Your task to perform on an android device: Go to eBay Image 0: 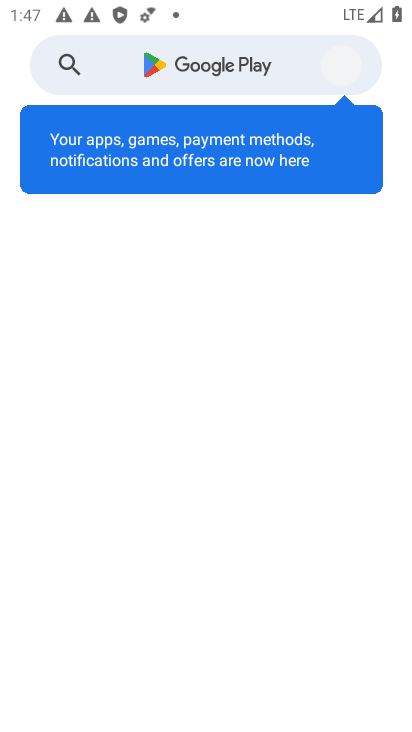
Step 0: press back button
Your task to perform on an android device: Go to eBay Image 1: 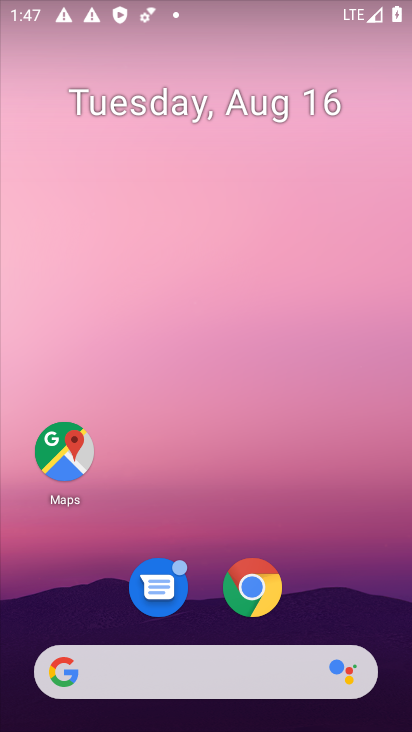
Step 1: click (261, 590)
Your task to perform on an android device: Go to eBay Image 2: 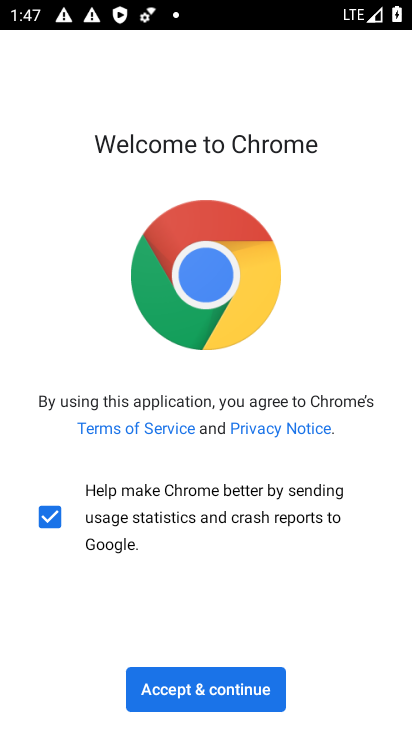
Step 2: click (185, 696)
Your task to perform on an android device: Go to eBay Image 3: 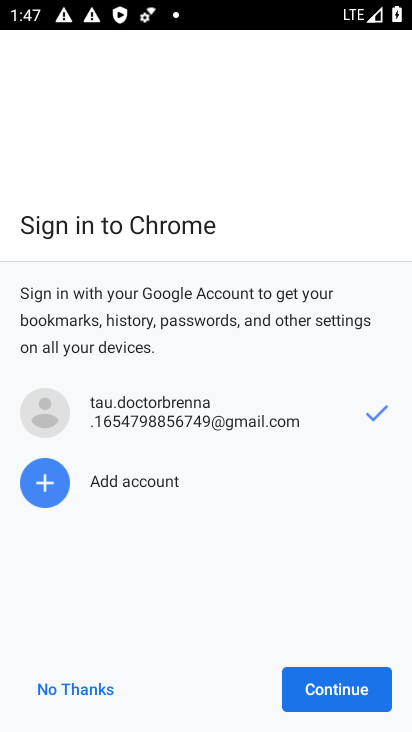
Step 3: click (350, 675)
Your task to perform on an android device: Go to eBay Image 4: 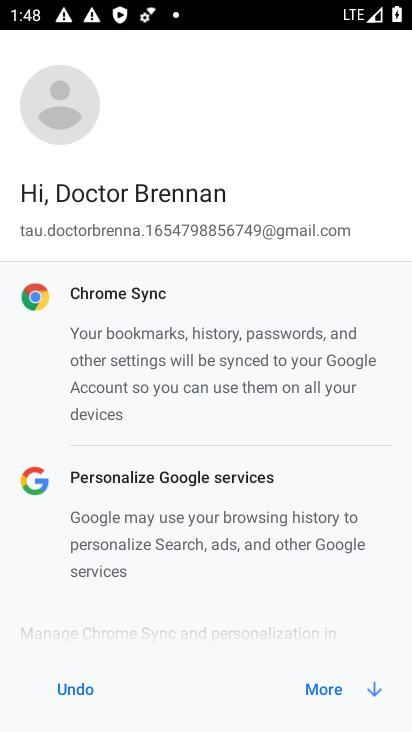
Step 4: click (331, 679)
Your task to perform on an android device: Go to eBay Image 5: 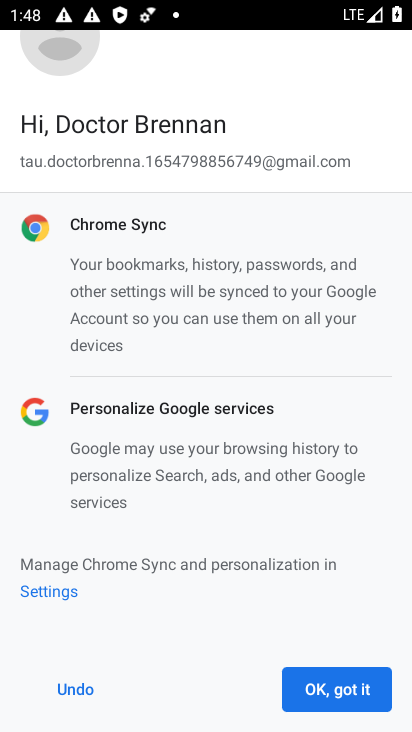
Step 5: click (329, 682)
Your task to perform on an android device: Go to eBay Image 6: 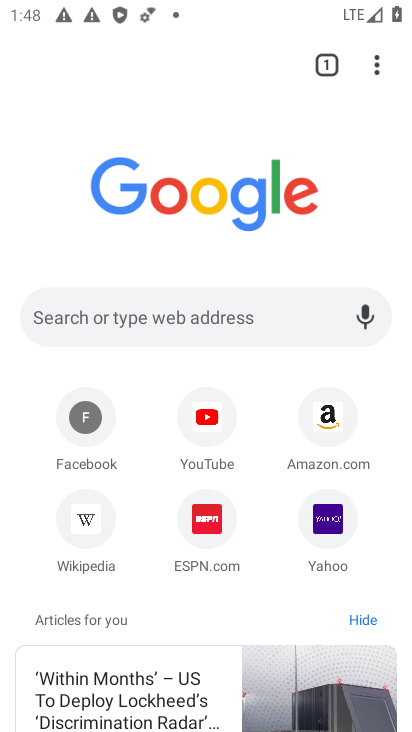
Step 6: click (129, 323)
Your task to perform on an android device: Go to eBay Image 7: 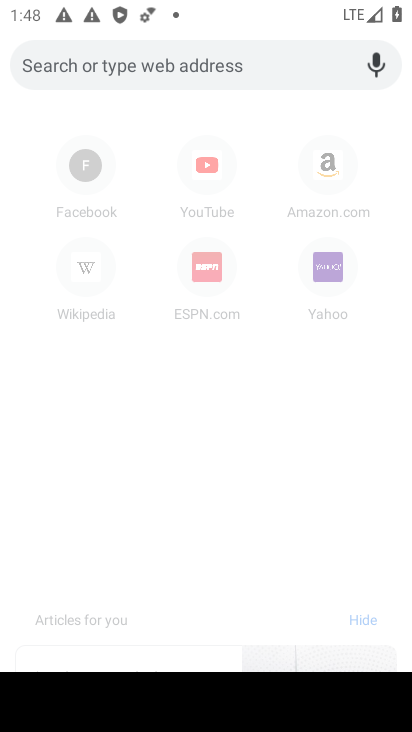
Step 7: click (125, 69)
Your task to perform on an android device: Go to eBay Image 8: 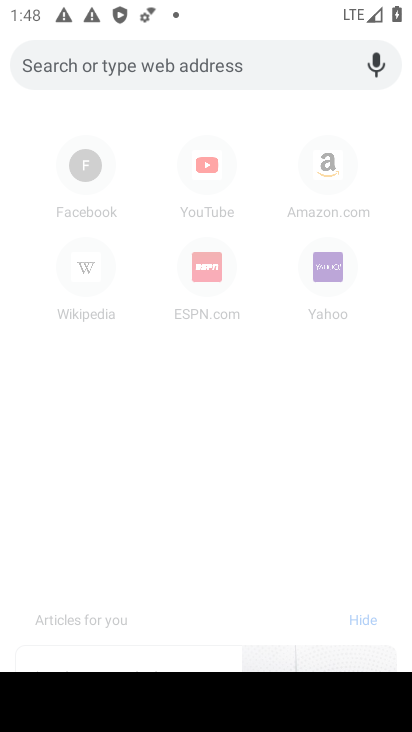
Step 8: type "ebay"
Your task to perform on an android device: Go to eBay Image 9: 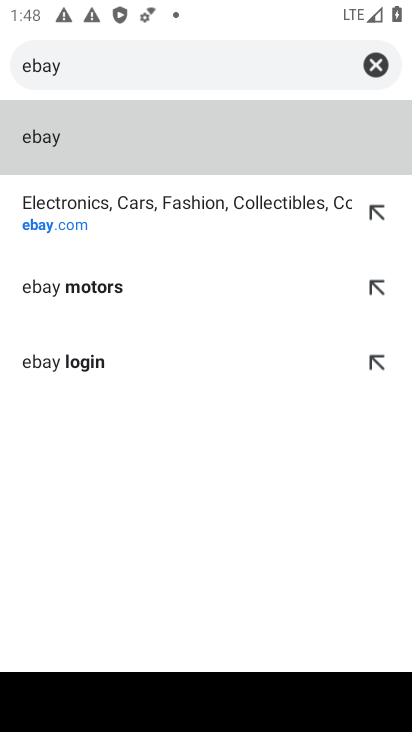
Step 9: click (113, 210)
Your task to perform on an android device: Go to eBay Image 10: 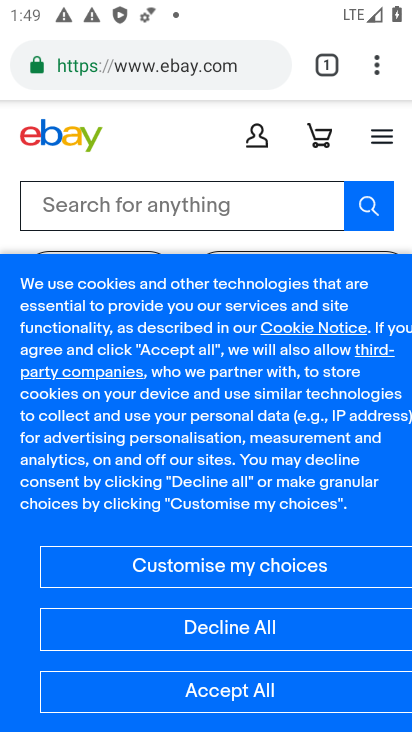
Step 10: task complete